Your task to perform on an android device: Add usb-a to usb-b to the cart on costco Image 0: 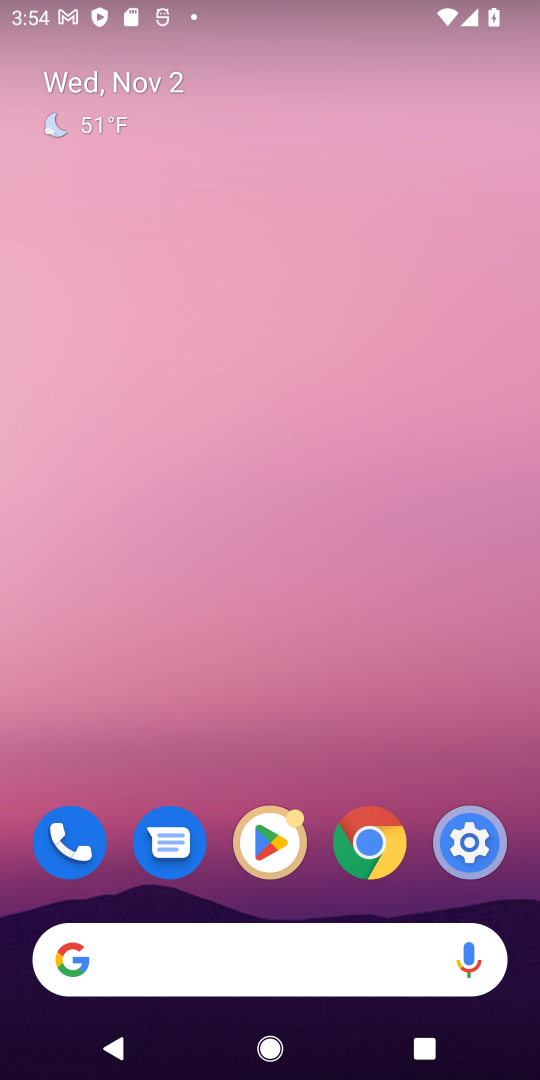
Step 0: click (252, 975)
Your task to perform on an android device: Add usb-a to usb-b to the cart on costco Image 1: 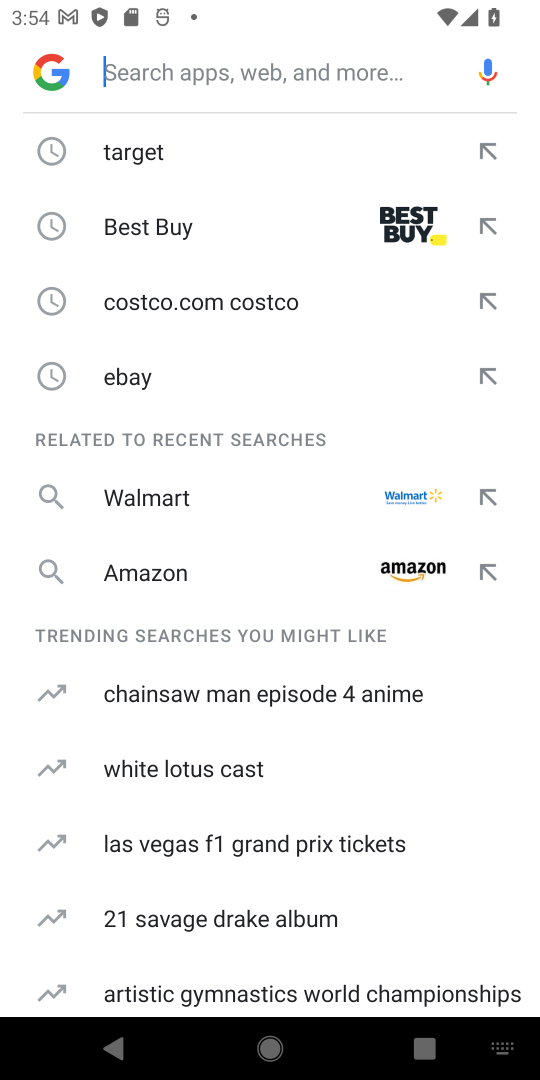
Step 1: type "costco"
Your task to perform on an android device: Add usb-a to usb-b to the cart on costco Image 2: 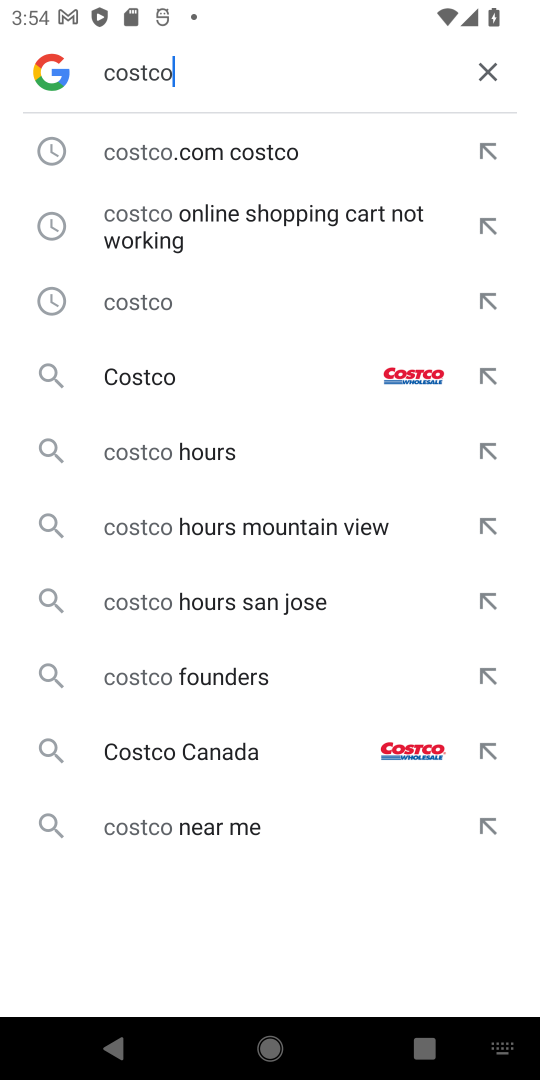
Step 2: click (173, 376)
Your task to perform on an android device: Add usb-a to usb-b to the cart on costco Image 3: 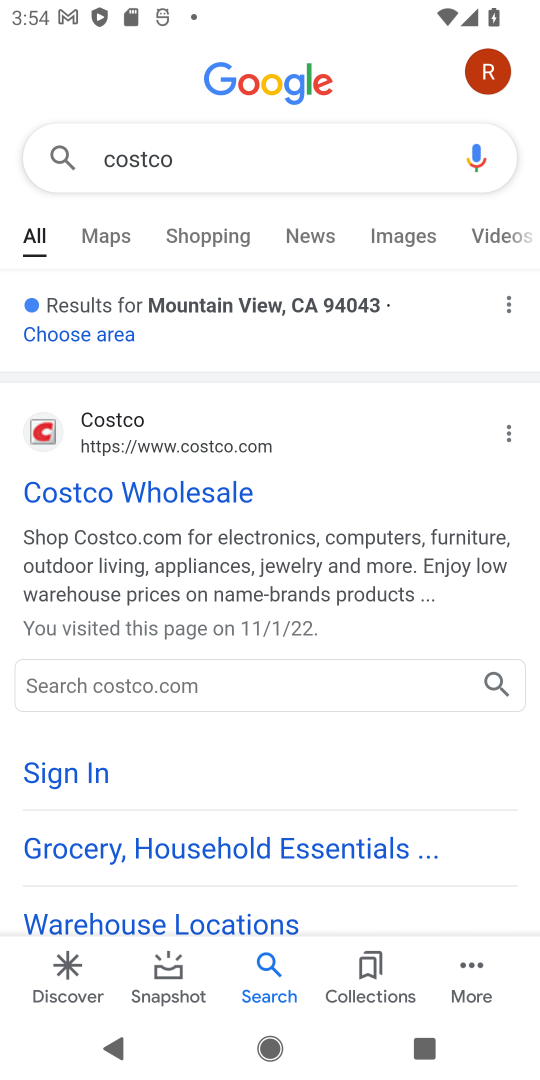
Step 3: click (132, 485)
Your task to perform on an android device: Add usb-a to usb-b to the cart on costco Image 4: 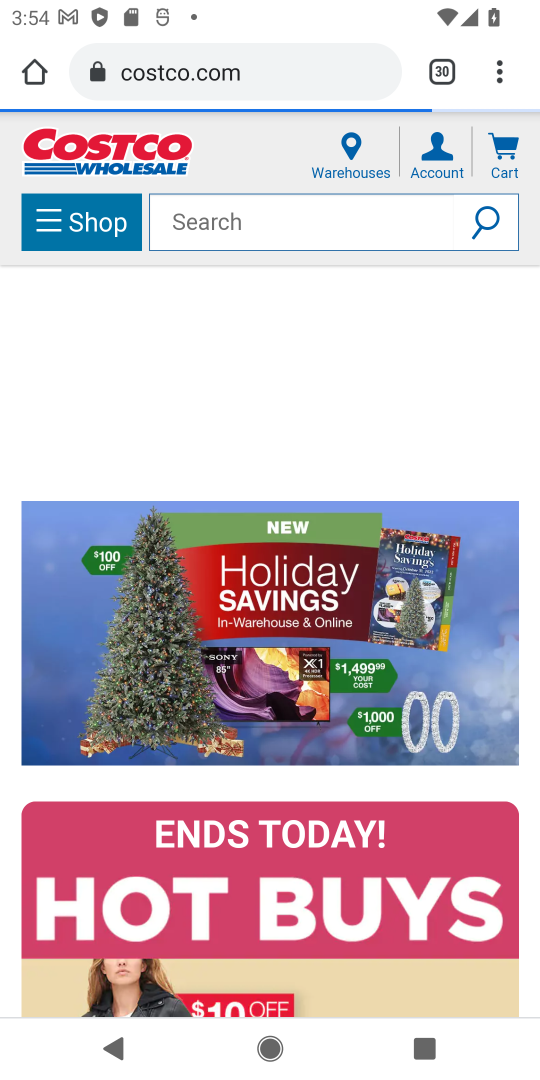
Step 4: click (287, 225)
Your task to perform on an android device: Add usb-a to usb-b to the cart on costco Image 5: 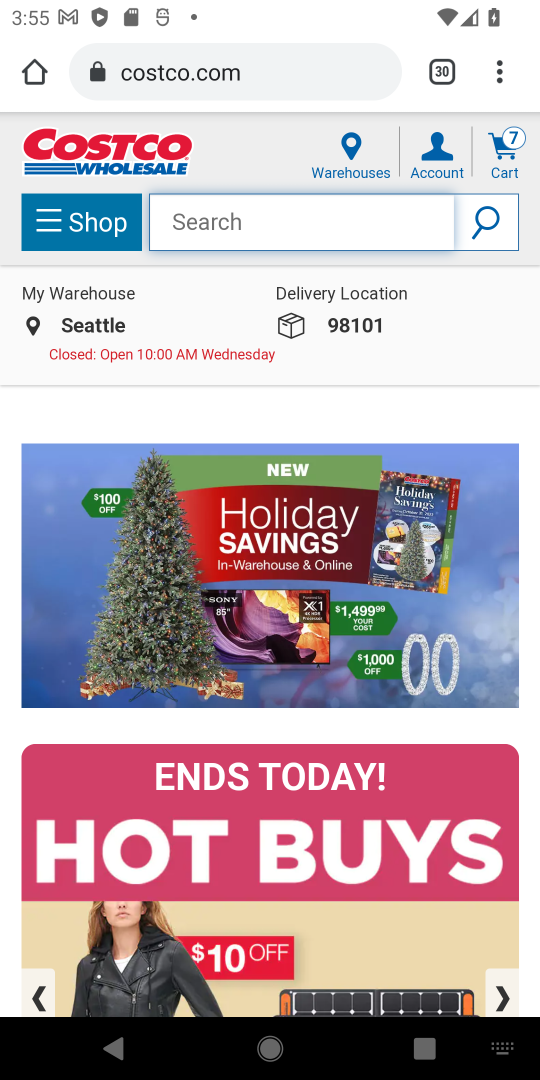
Step 5: type "usb-a to usb-b"
Your task to perform on an android device: Add usb-a to usb-b to the cart on costco Image 6: 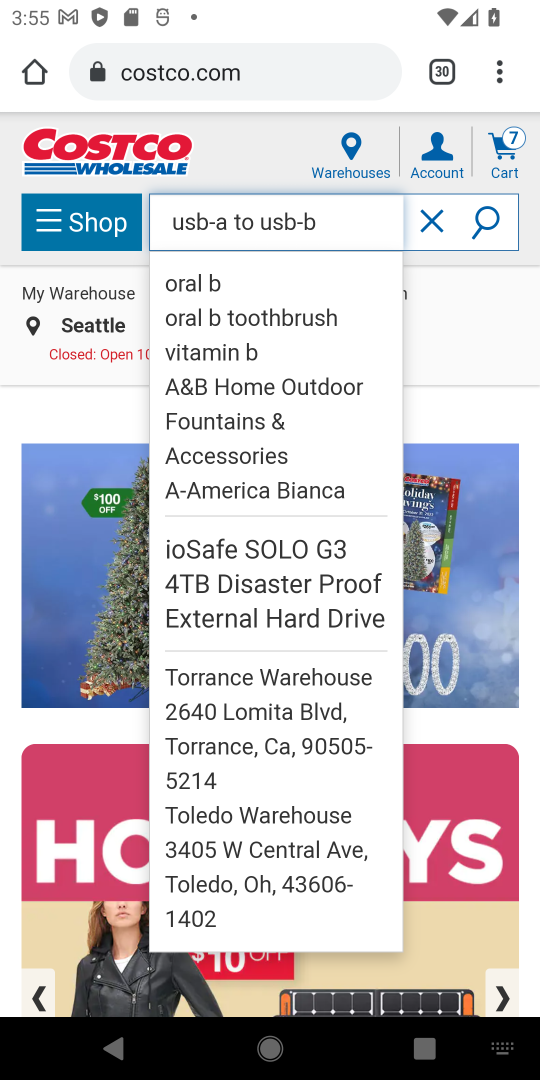
Step 6: click (492, 219)
Your task to perform on an android device: Add usb-a to usb-b to the cart on costco Image 7: 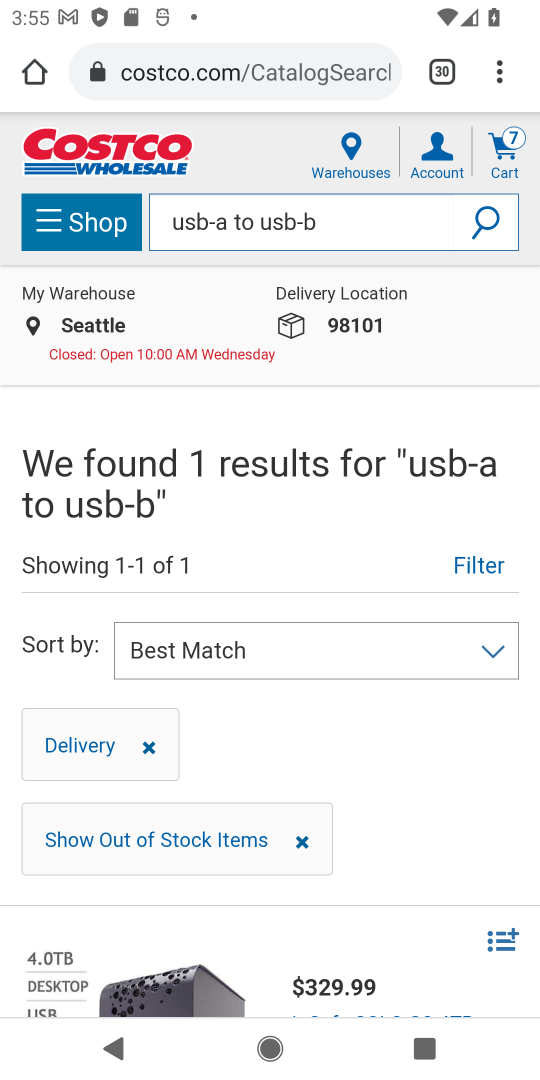
Step 7: drag from (371, 808) to (320, 435)
Your task to perform on an android device: Add usb-a to usb-b to the cart on costco Image 8: 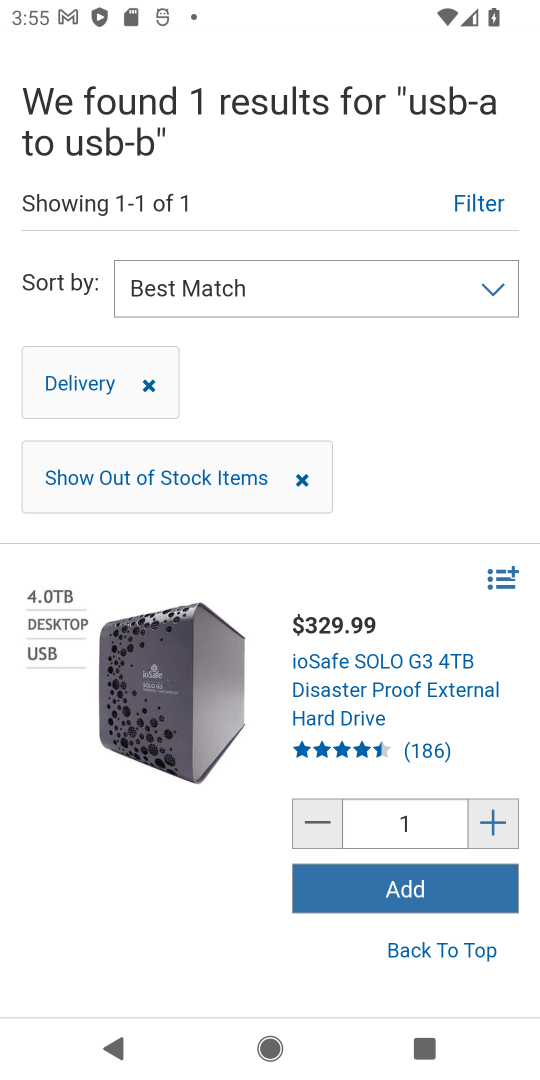
Step 8: click (390, 894)
Your task to perform on an android device: Add usb-a to usb-b to the cart on costco Image 9: 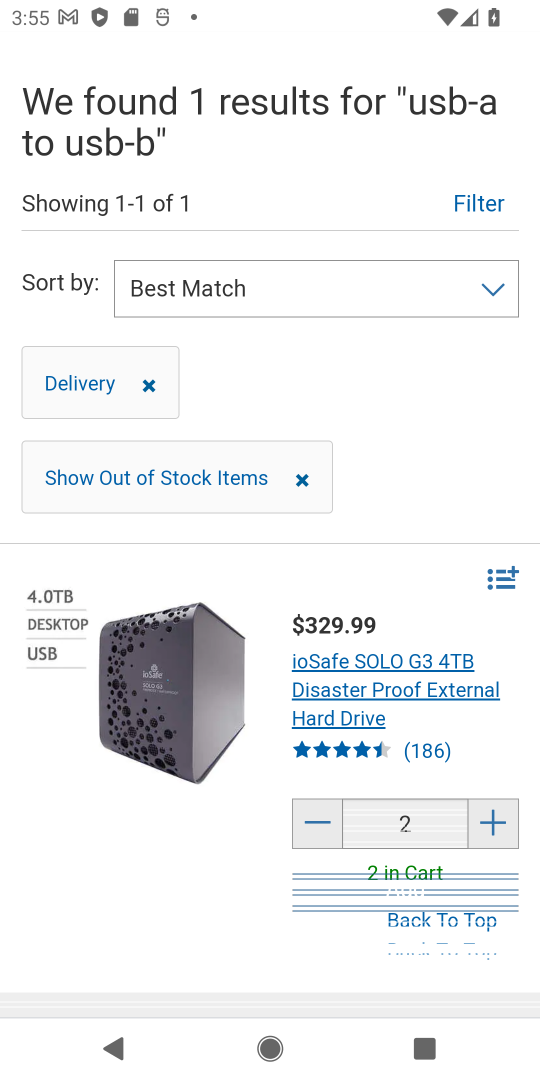
Step 9: task complete